Your task to perform on an android device: Search for vegetarian restaurants on Maps Image 0: 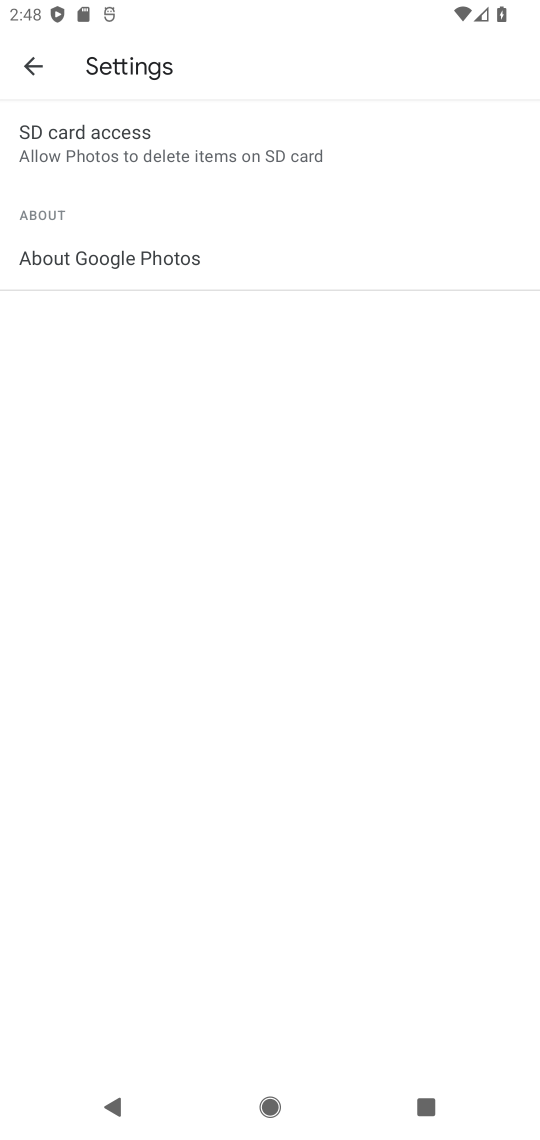
Step 0: press home button
Your task to perform on an android device: Search for vegetarian restaurants on Maps Image 1: 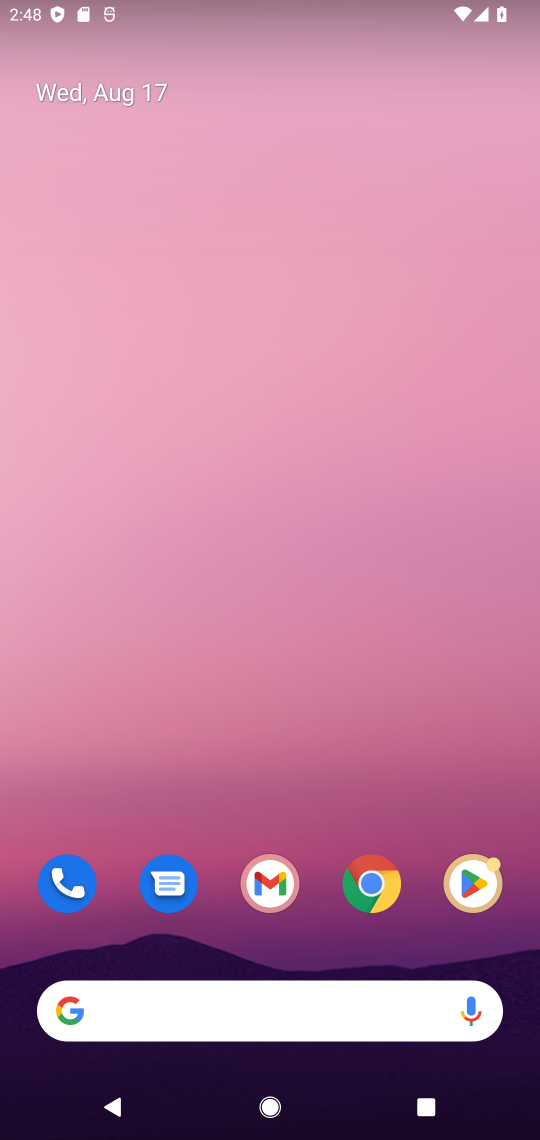
Step 1: drag from (347, 789) to (329, 1)
Your task to perform on an android device: Search for vegetarian restaurants on Maps Image 2: 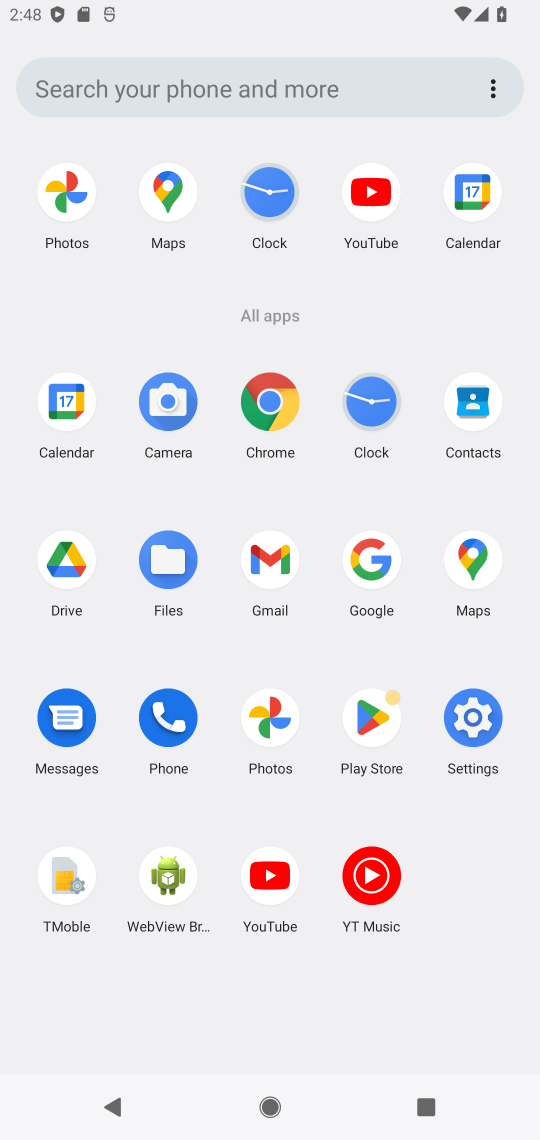
Step 2: click (477, 560)
Your task to perform on an android device: Search for vegetarian restaurants on Maps Image 3: 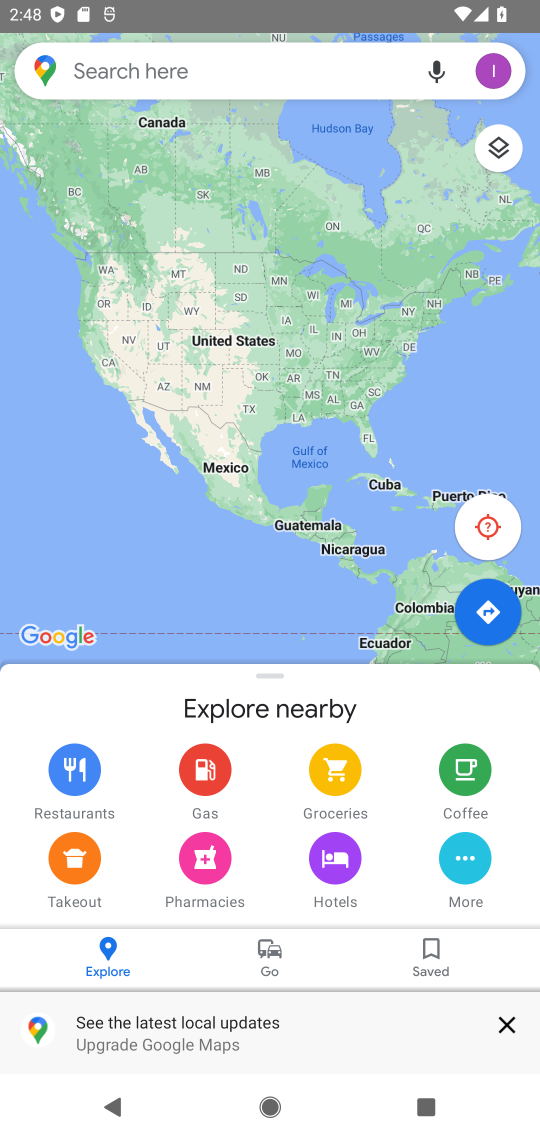
Step 3: click (264, 69)
Your task to perform on an android device: Search for vegetarian restaurants on Maps Image 4: 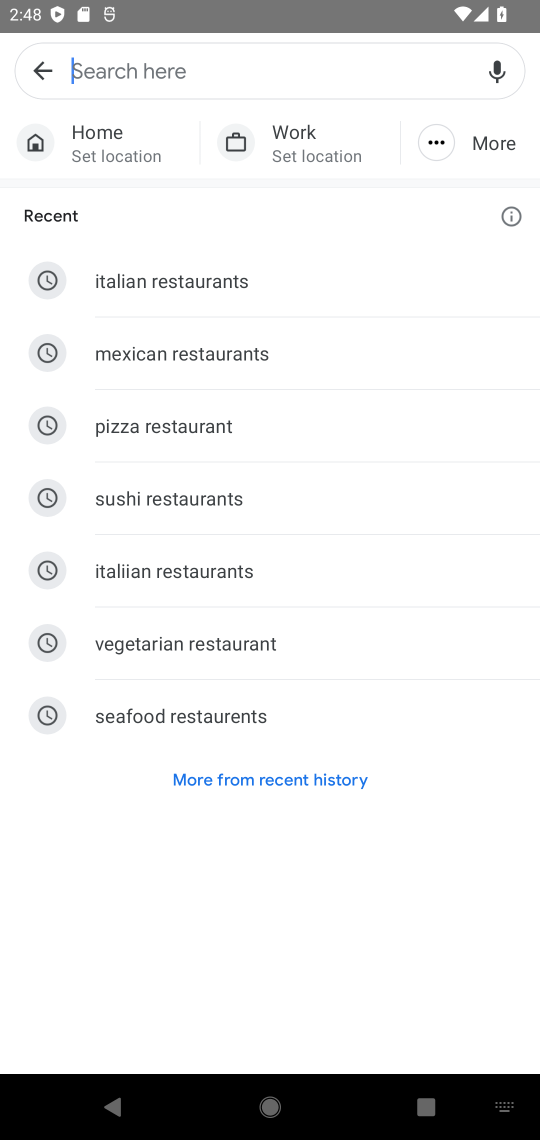
Step 4: type "vegetarian restaurants"
Your task to perform on an android device: Search for vegetarian restaurants on Maps Image 5: 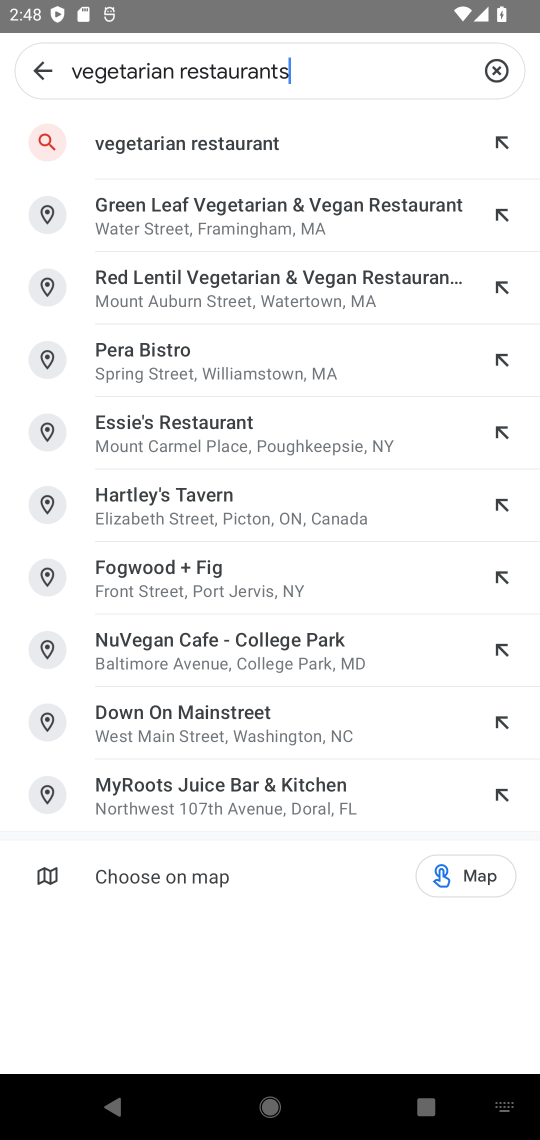
Step 5: press enter
Your task to perform on an android device: Search for vegetarian restaurants on Maps Image 6: 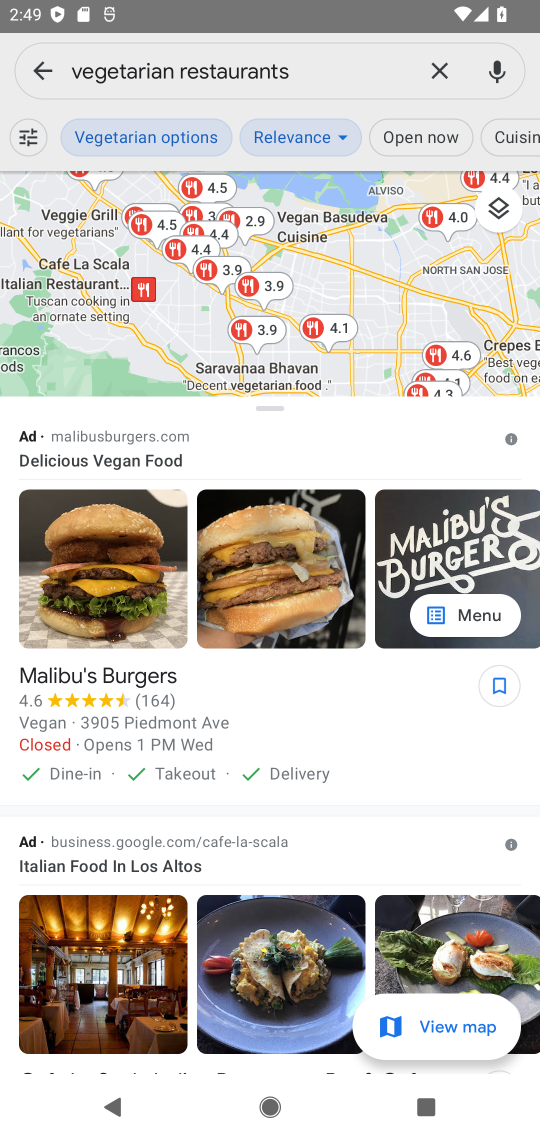
Step 6: task complete